Your task to perform on an android device: turn off notifications settings in the gmail app Image 0: 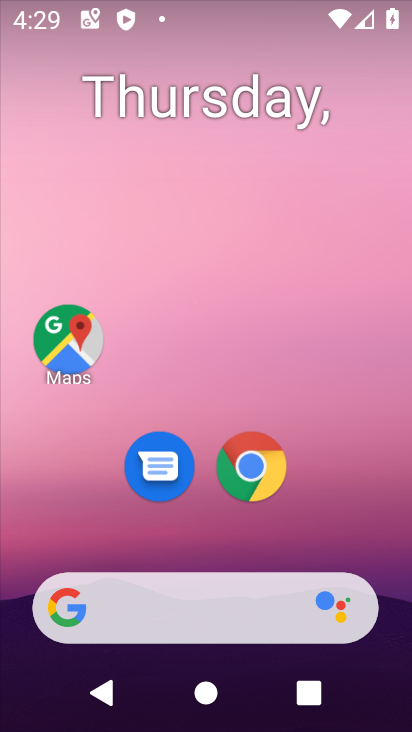
Step 0: drag from (339, 497) to (340, 55)
Your task to perform on an android device: turn off notifications settings in the gmail app Image 1: 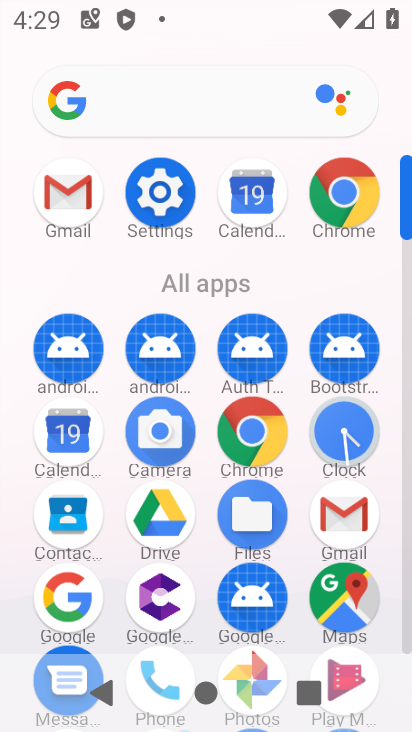
Step 1: click (84, 176)
Your task to perform on an android device: turn off notifications settings in the gmail app Image 2: 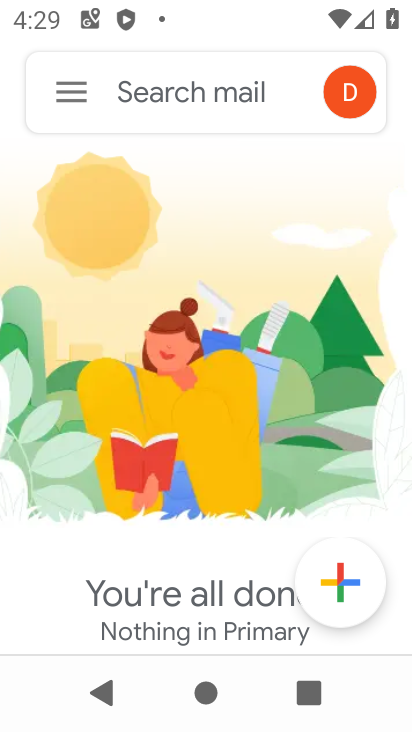
Step 2: click (80, 102)
Your task to perform on an android device: turn off notifications settings in the gmail app Image 3: 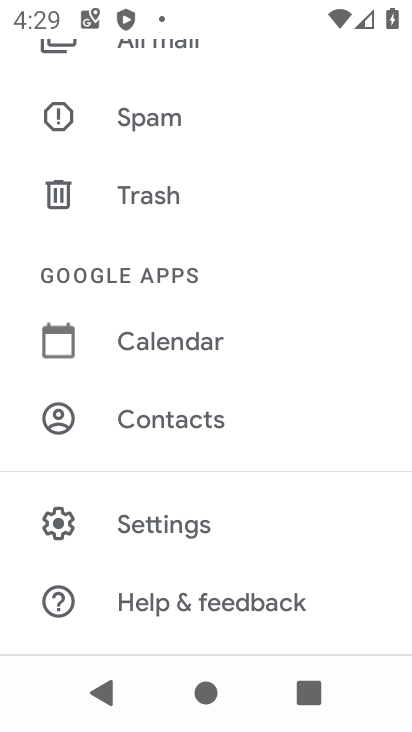
Step 3: drag from (181, 183) to (156, 598)
Your task to perform on an android device: turn off notifications settings in the gmail app Image 4: 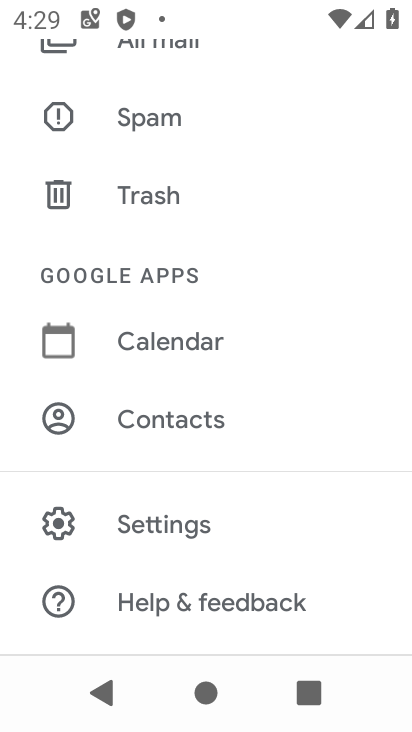
Step 4: drag from (230, 228) to (213, 576)
Your task to perform on an android device: turn off notifications settings in the gmail app Image 5: 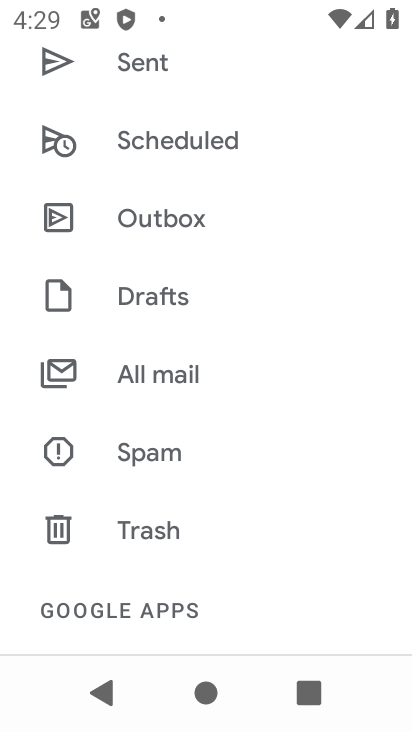
Step 5: drag from (225, 265) to (204, 608)
Your task to perform on an android device: turn off notifications settings in the gmail app Image 6: 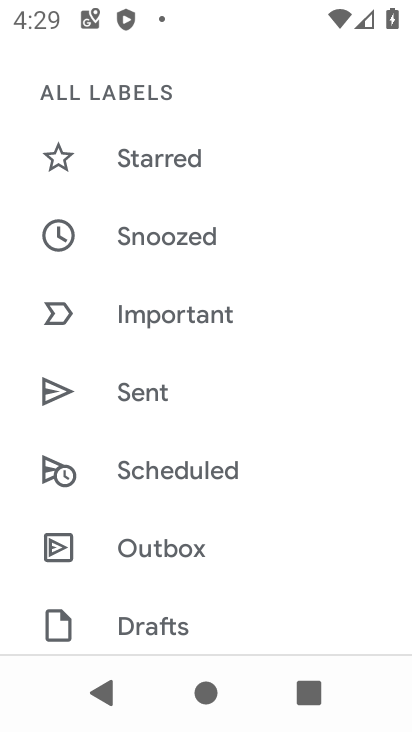
Step 6: drag from (186, 201) to (164, 628)
Your task to perform on an android device: turn off notifications settings in the gmail app Image 7: 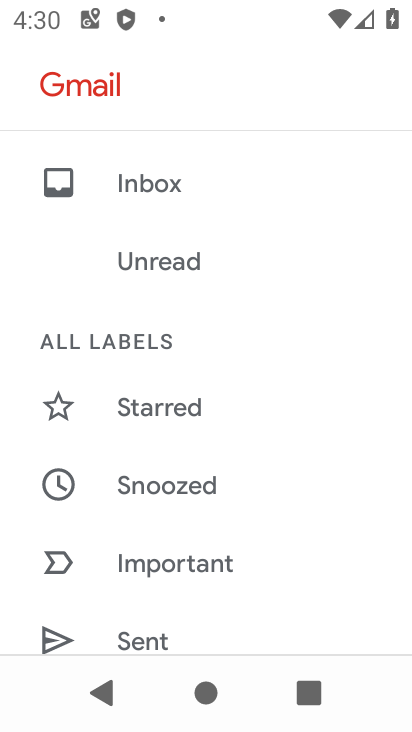
Step 7: drag from (148, 560) to (141, 247)
Your task to perform on an android device: turn off notifications settings in the gmail app Image 8: 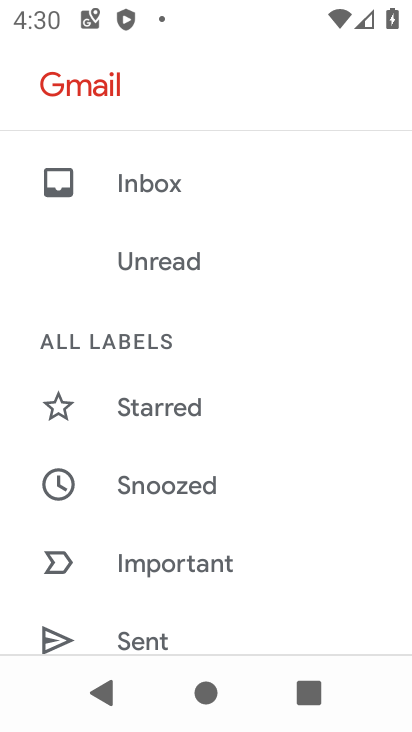
Step 8: drag from (138, 588) to (165, 234)
Your task to perform on an android device: turn off notifications settings in the gmail app Image 9: 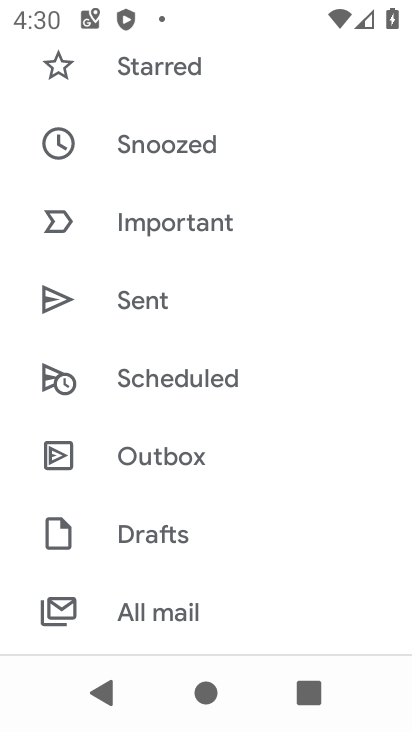
Step 9: drag from (196, 616) to (203, 240)
Your task to perform on an android device: turn off notifications settings in the gmail app Image 10: 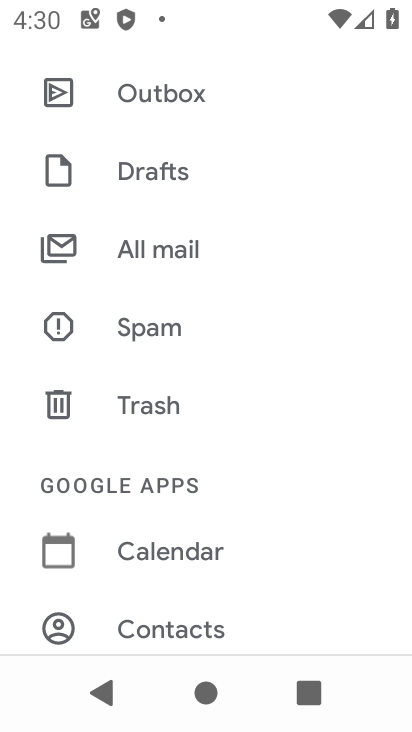
Step 10: drag from (185, 556) to (227, 208)
Your task to perform on an android device: turn off notifications settings in the gmail app Image 11: 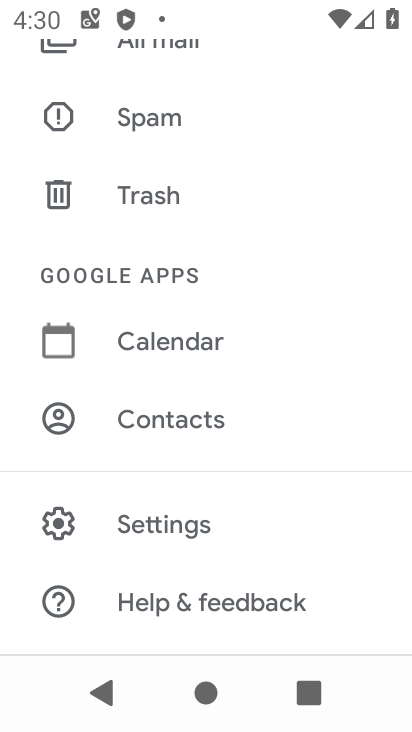
Step 11: click (167, 542)
Your task to perform on an android device: turn off notifications settings in the gmail app Image 12: 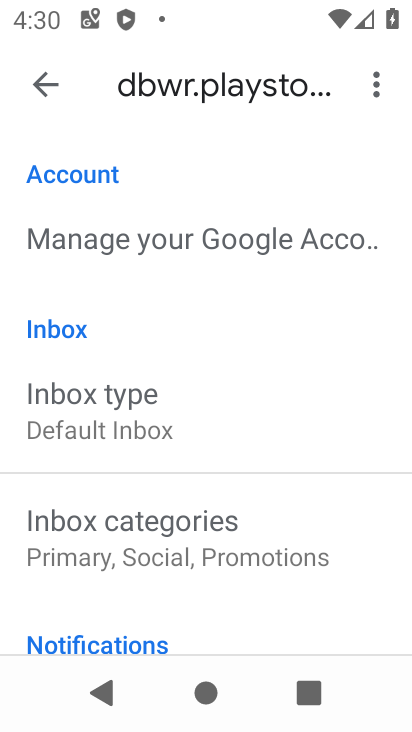
Step 12: drag from (211, 639) to (203, 213)
Your task to perform on an android device: turn off notifications settings in the gmail app Image 13: 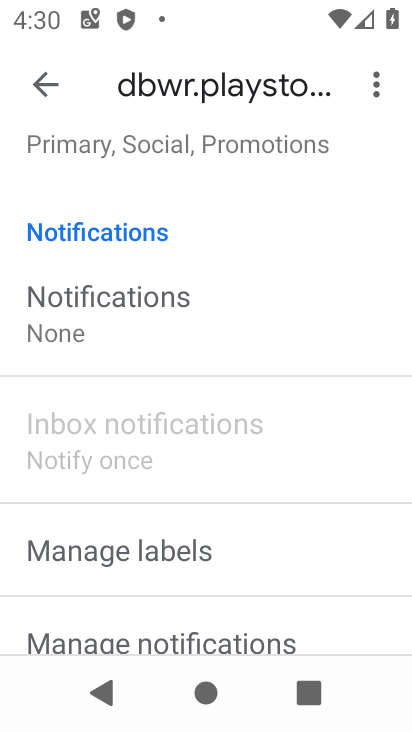
Step 13: click (128, 312)
Your task to perform on an android device: turn off notifications settings in the gmail app Image 14: 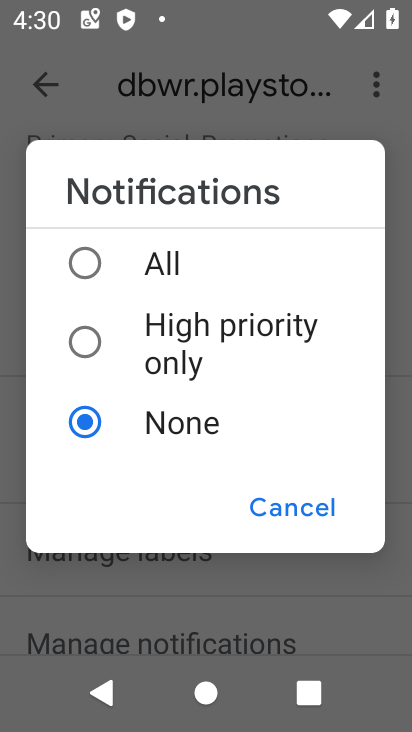
Step 14: task complete